Your task to perform on an android device: remove spam from my inbox in the gmail app Image 0: 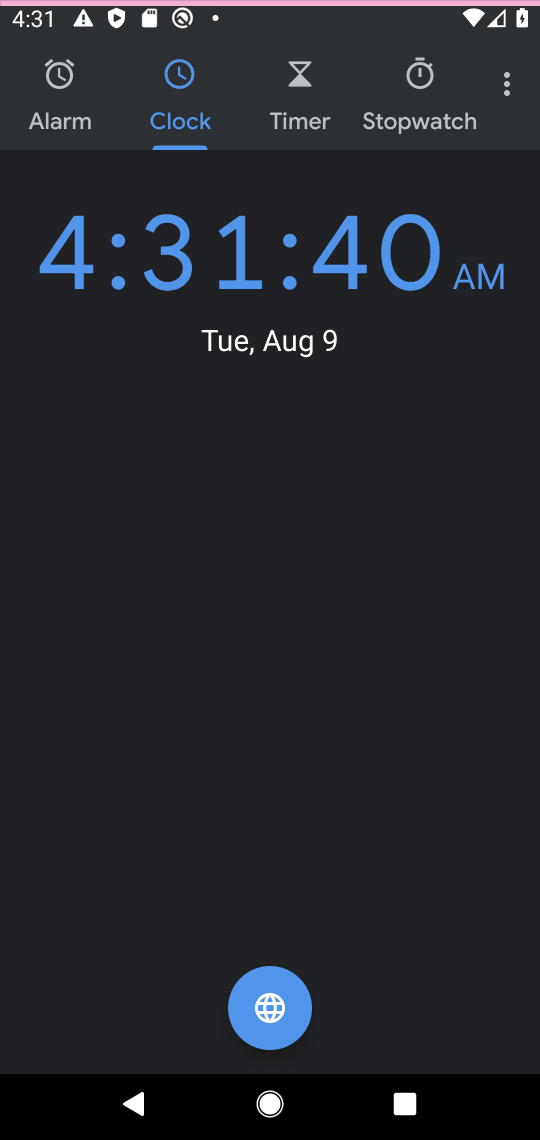
Step 0: press home button
Your task to perform on an android device: remove spam from my inbox in the gmail app Image 1: 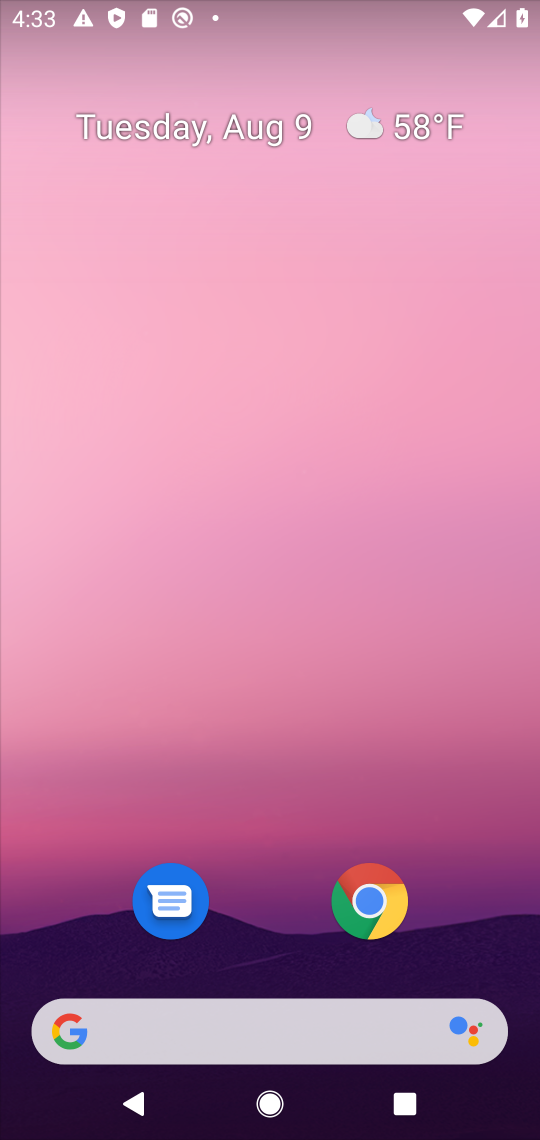
Step 1: drag from (298, 666) to (314, 45)
Your task to perform on an android device: remove spam from my inbox in the gmail app Image 2: 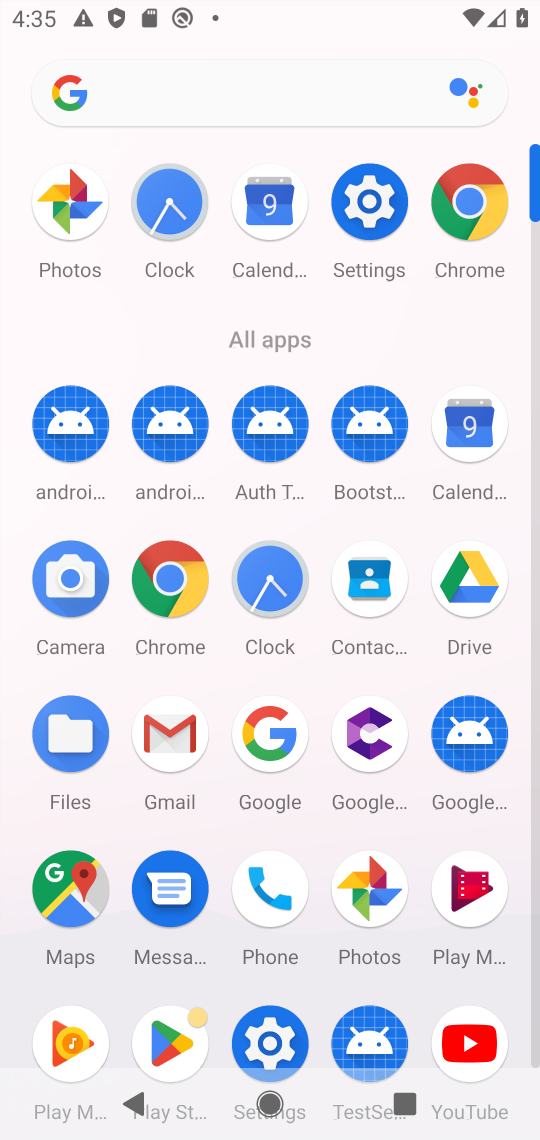
Step 2: click (175, 730)
Your task to perform on an android device: remove spam from my inbox in the gmail app Image 3: 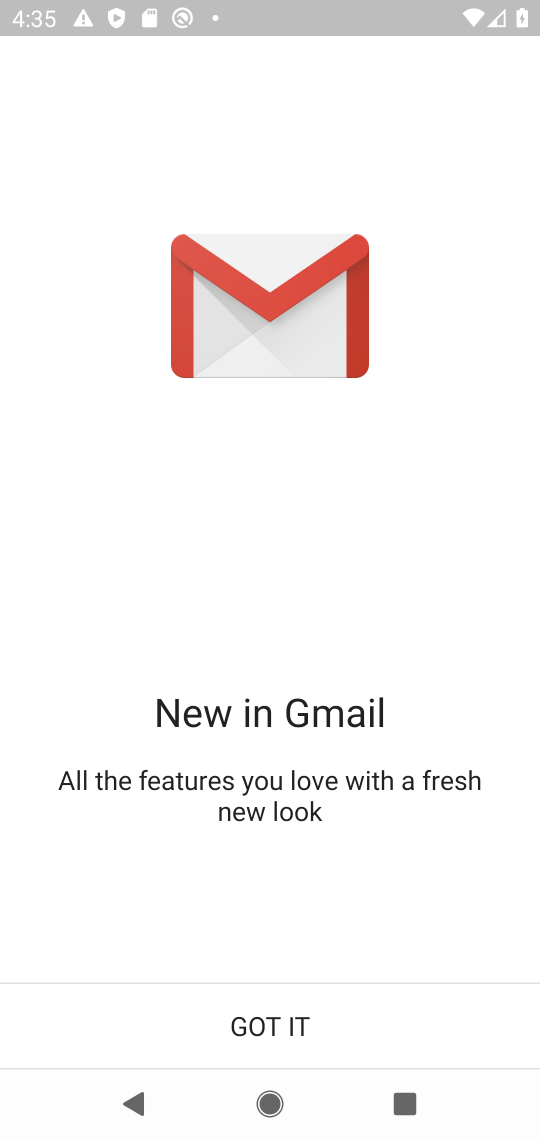
Step 3: click (251, 1042)
Your task to perform on an android device: remove spam from my inbox in the gmail app Image 4: 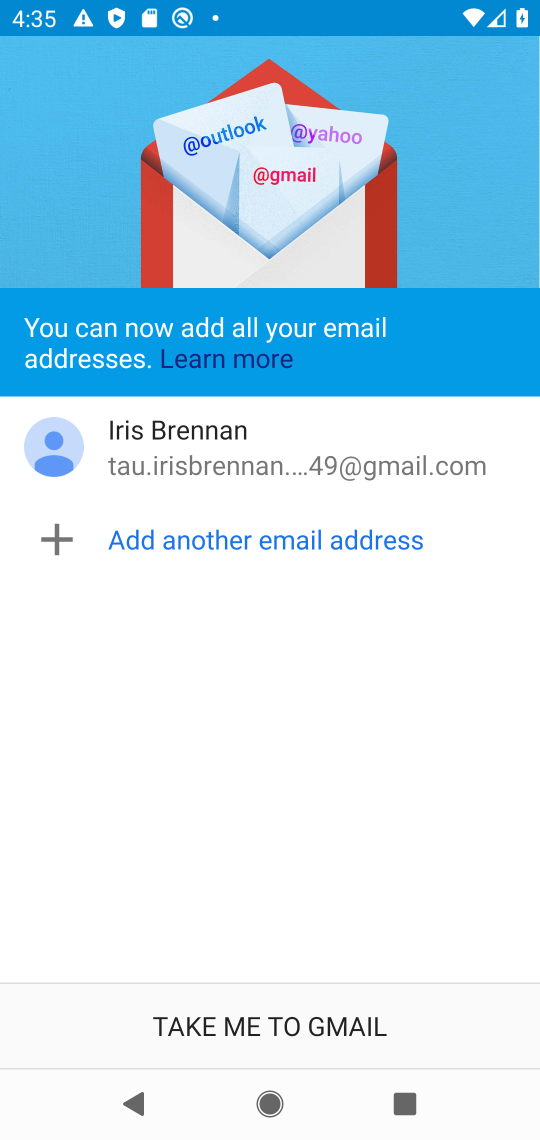
Step 4: click (248, 1033)
Your task to perform on an android device: remove spam from my inbox in the gmail app Image 5: 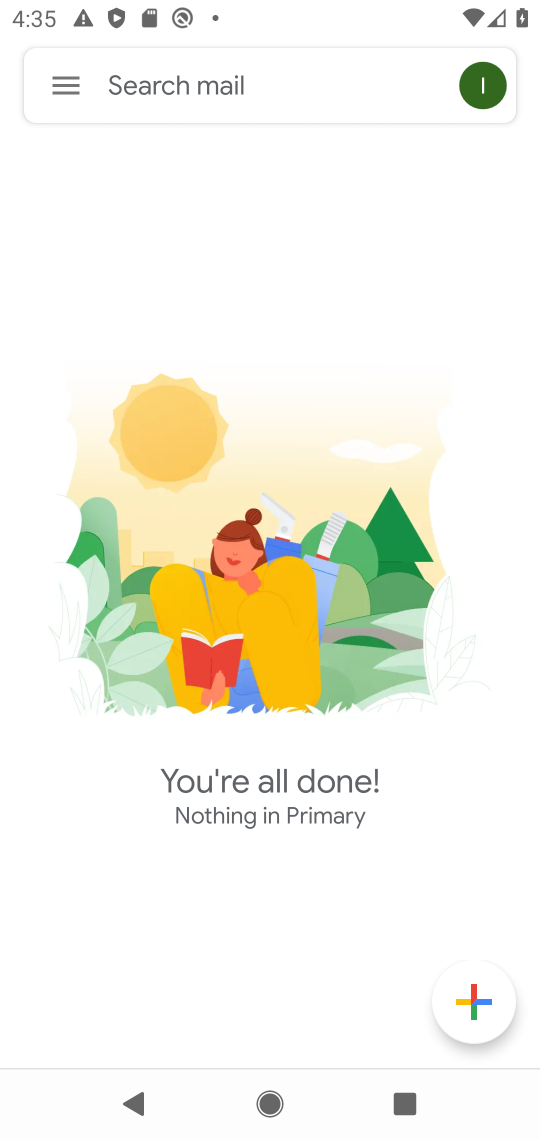
Step 5: task complete